Your task to perform on an android device: Open Chrome and go to the settings page Image 0: 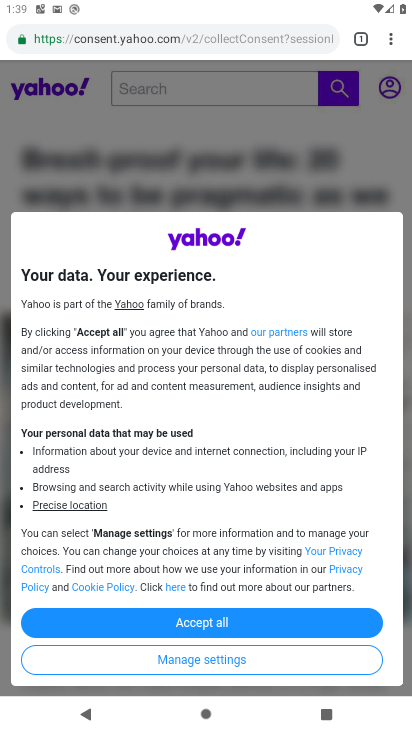
Step 0: click (388, 42)
Your task to perform on an android device: Open Chrome and go to the settings page Image 1: 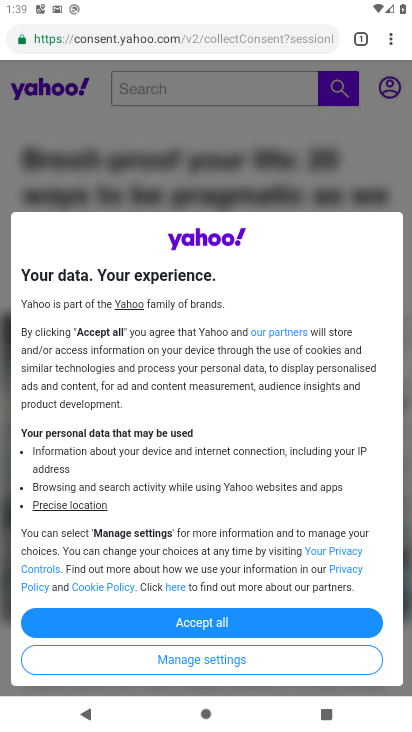
Step 1: click (391, 35)
Your task to perform on an android device: Open Chrome and go to the settings page Image 2: 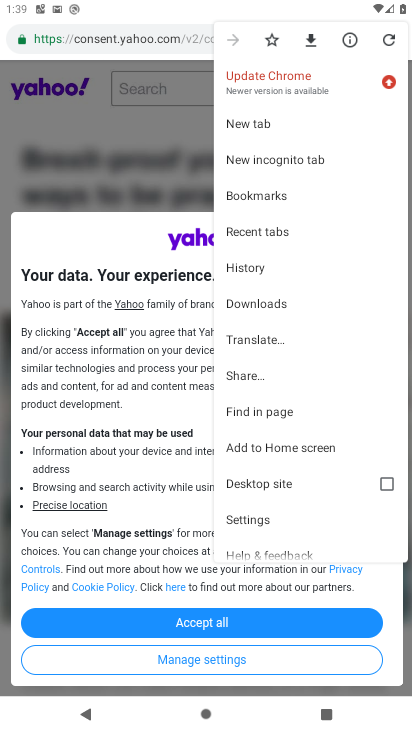
Step 2: click (252, 521)
Your task to perform on an android device: Open Chrome and go to the settings page Image 3: 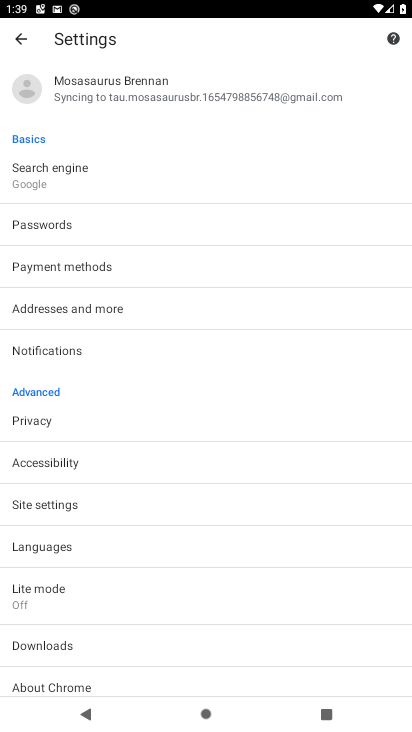
Step 3: task complete